Your task to perform on an android device: stop showing notifications on the lock screen Image 0: 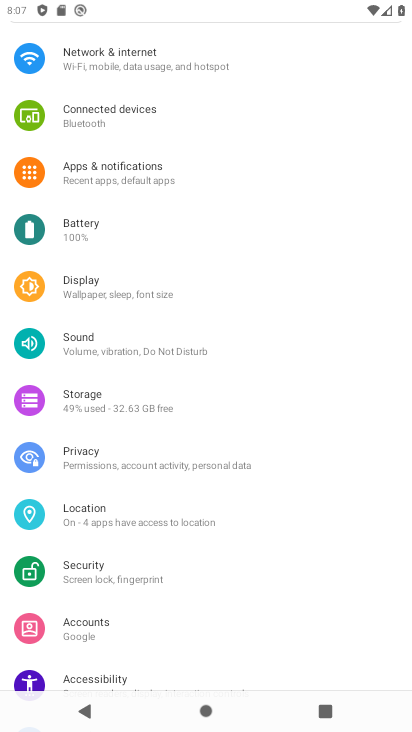
Step 0: click (120, 167)
Your task to perform on an android device: stop showing notifications on the lock screen Image 1: 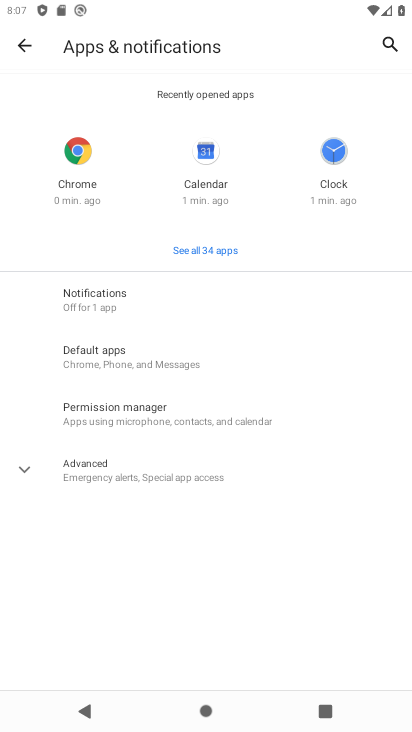
Step 1: click (84, 286)
Your task to perform on an android device: stop showing notifications on the lock screen Image 2: 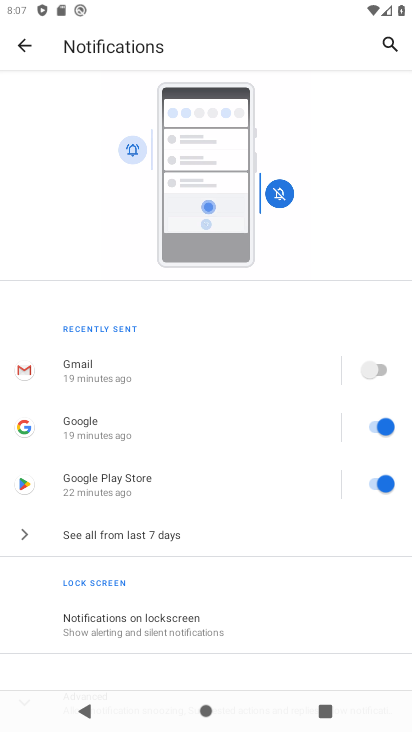
Step 2: click (159, 620)
Your task to perform on an android device: stop showing notifications on the lock screen Image 3: 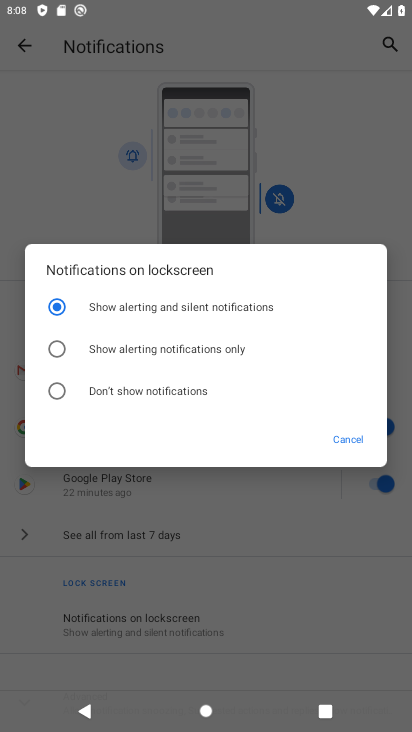
Step 3: click (56, 390)
Your task to perform on an android device: stop showing notifications on the lock screen Image 4: 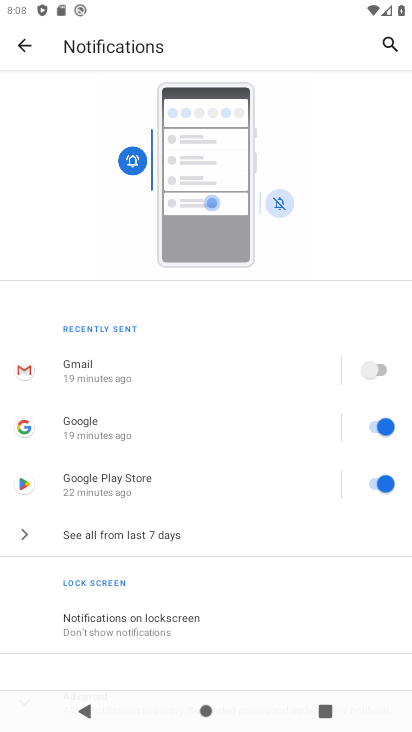
Step 4: task complete